Your task to perform on an android device: visit the assistant section in the google photos Image 0: 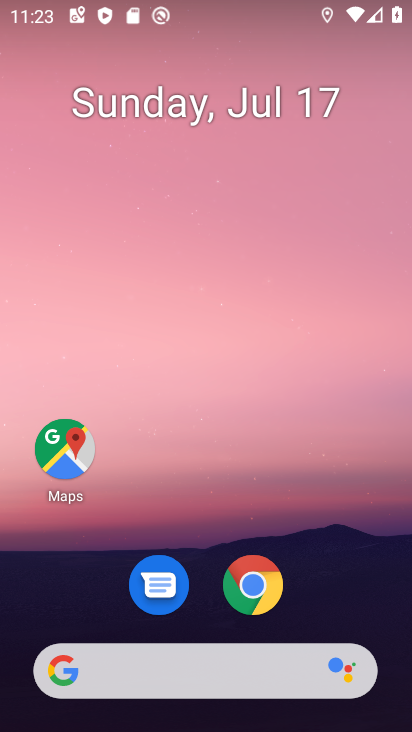
Step 0: drag from (333, 504) to (388, 35)
Your task to perform on an android device: visit the assistant section in the google photos Image 1: 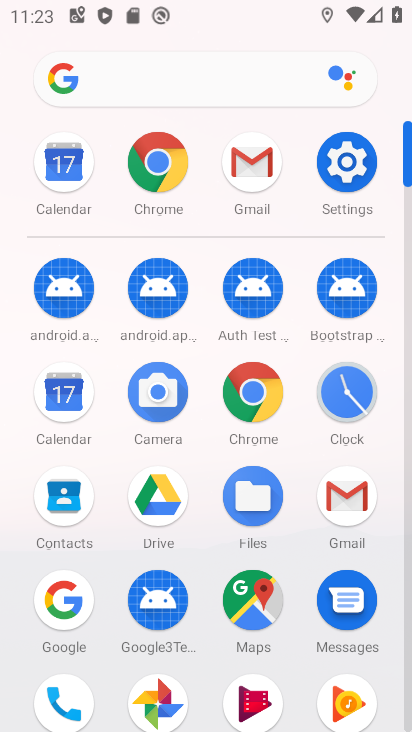
Step 1: drag from (222, 560) to (285, 226)
Your task to perform on an android device: visit the assistant section in the google photos Image 2: 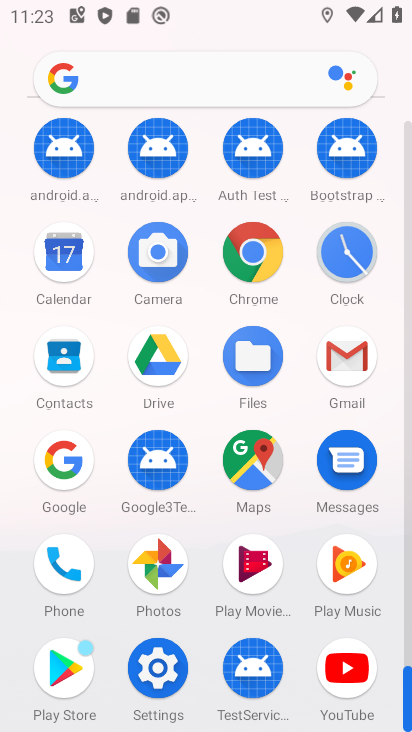
Step 2: click (156, 558)
Your task to perform on an android device: visit the assistant section in the google photos Image 3: 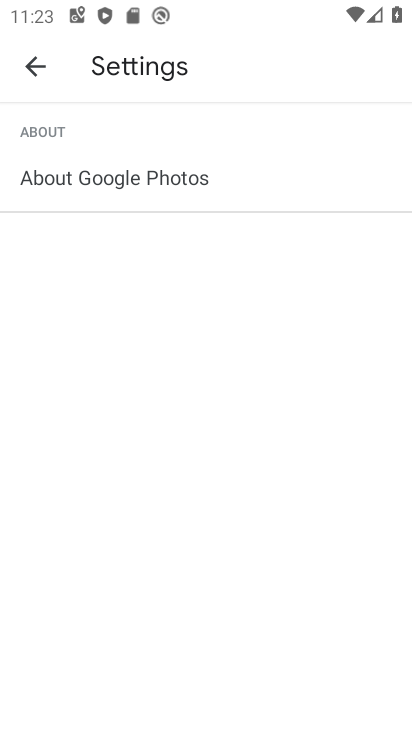
Step 3: click (23, 75)
Your task to perform on an android device: visit the assistant section in the google photos Image 4: 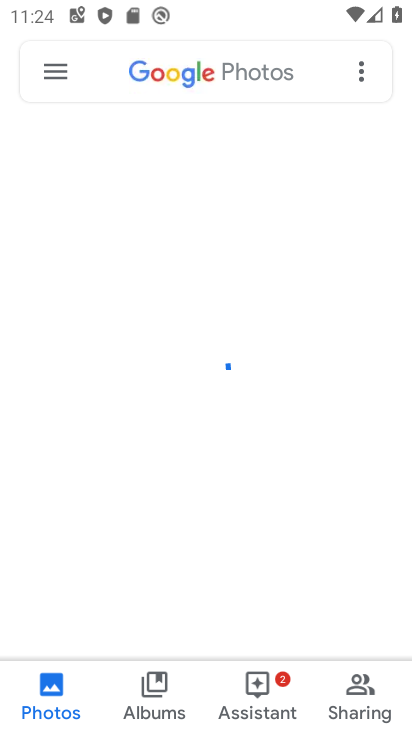
Step 4: click (249, 688)
Your task to perform on an android device: visit the assistant section in the google photos Image 5: 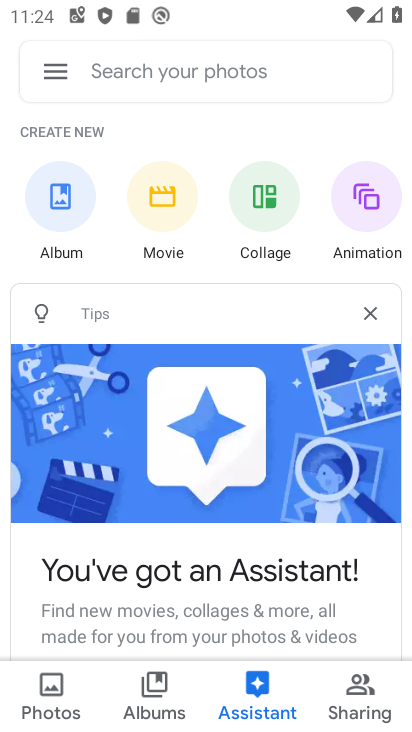
Step 5: task complete